Your task to perform on an android device: Search for Italian restaurants on Maps Image 0: 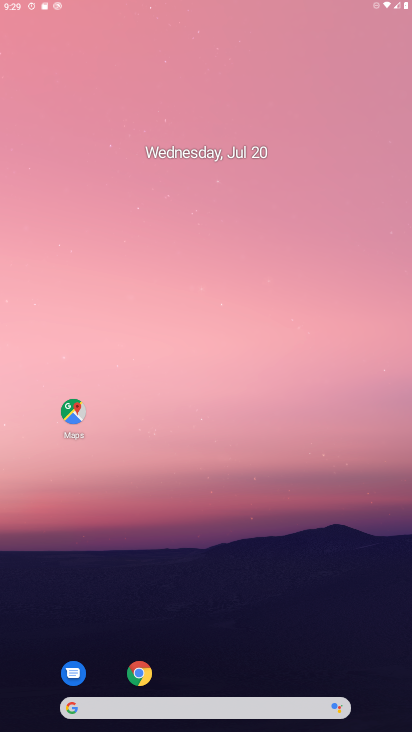
Step 0: drag from (378, 692) to (189, 59)
Your task to perform on an android device: Search for Italian restaurants on Maps Image 1: 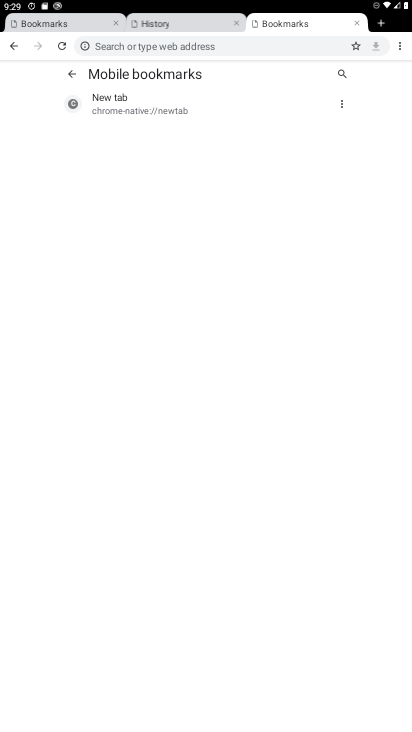
Step 1: press home button
Your task to perform on an android device: Search for Italian restaurants on Maps Image 2: 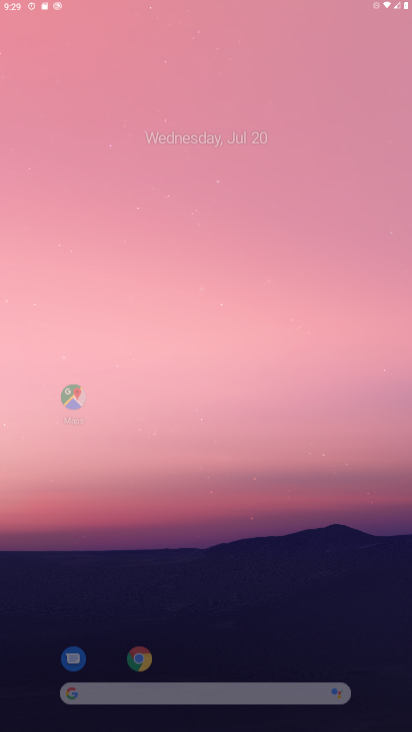
Step 2: drag from (350, 710) to (159, 46)
Your task to perform on an android device: Search for Italian restaurants on Maps Image 3: 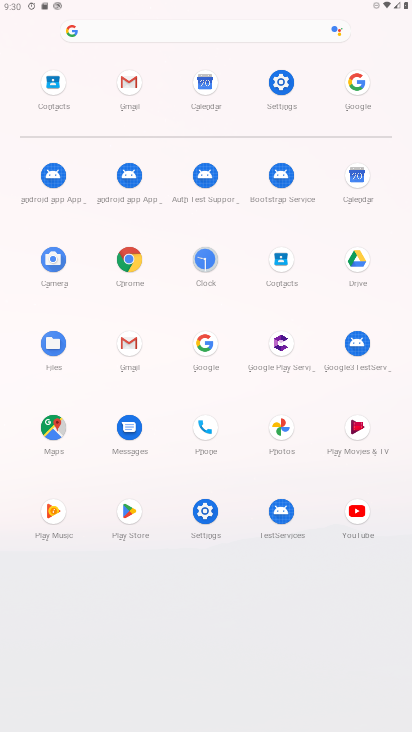
Step 3: click (52, 424)
Your task to perform on an android device: Search for Italian restaurants on Maps Image 4: 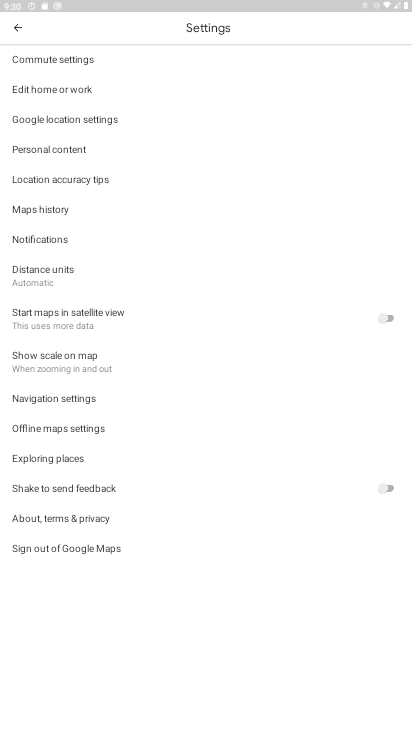
Step 4: press back button
Your task to perform on an android device: Search for Italian restaurants on Maps Image 5: 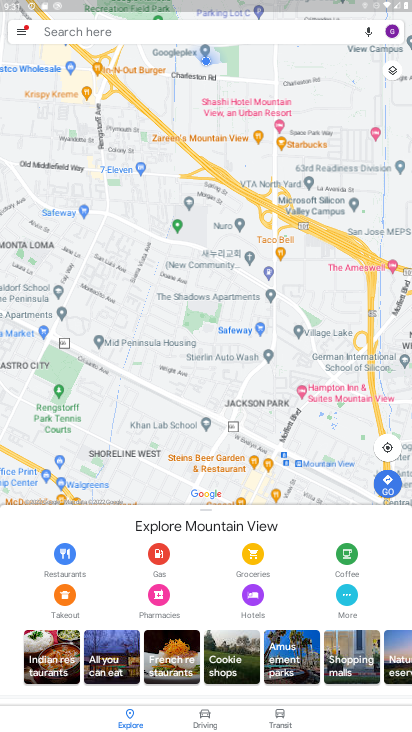
Step 5: click (131, 36)
Your task to perform on an android device: Search for Italian restaurants on Maps Image 6: 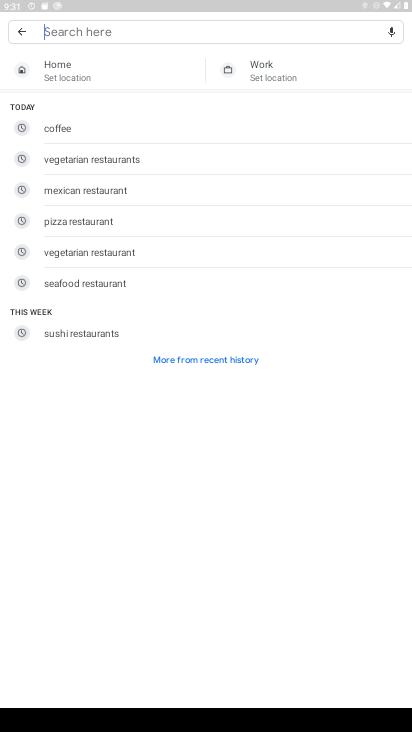
Step 6: type "Italian restaurants"
Your task to perform on an android device: Search for Italian restaurants on Maps Image 7: 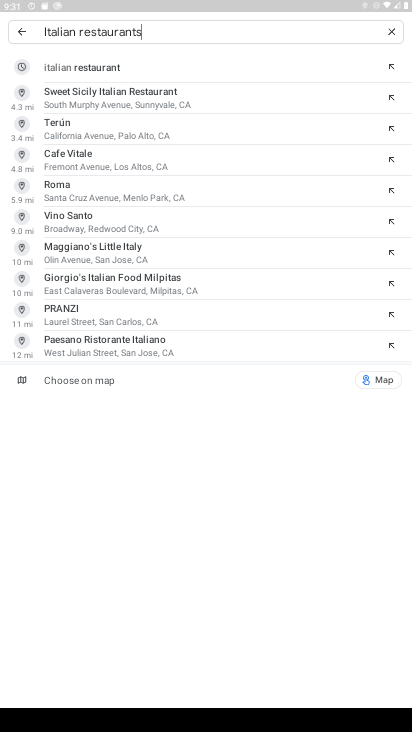
Step 7: click (91, 72)
Your task to perform on an android device: Search for Italian restaurants on Maps Image 8: 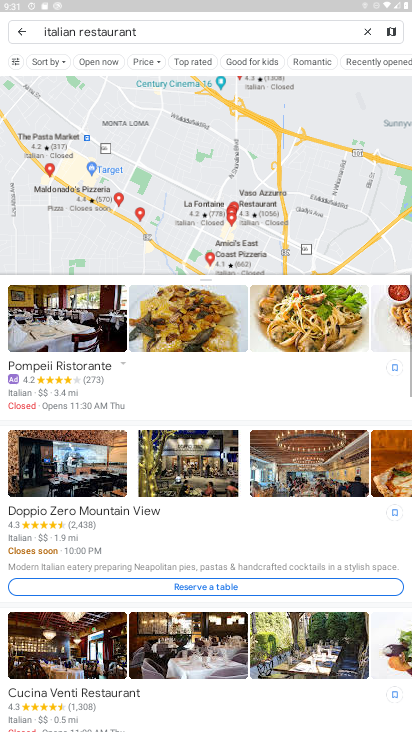
Step 8: task complete